Your task to perform on an android device: Show me recent news Image 0: 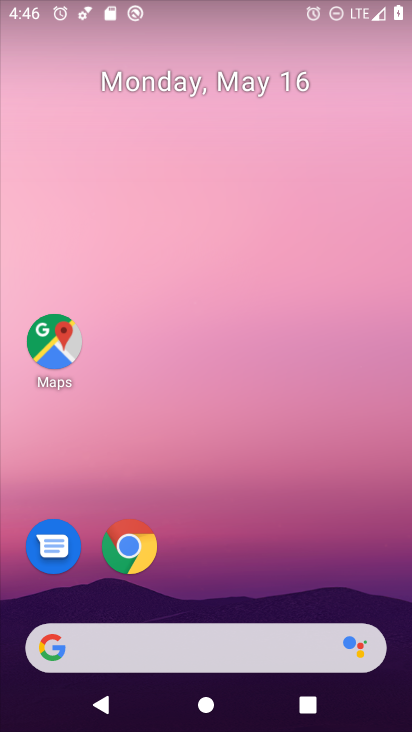
Step 0: drag from (4, 222) to (408, 380)
Your task to perform on an android device: Show me recent news Image 1: 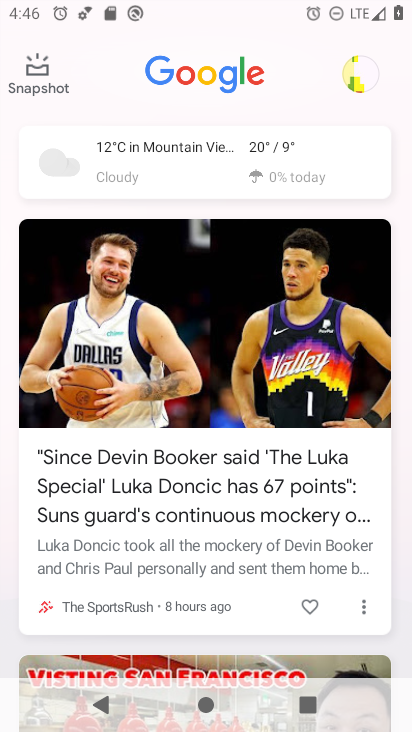
Step 1: task complete